Your task to perform on an android device: check android version Image 0: 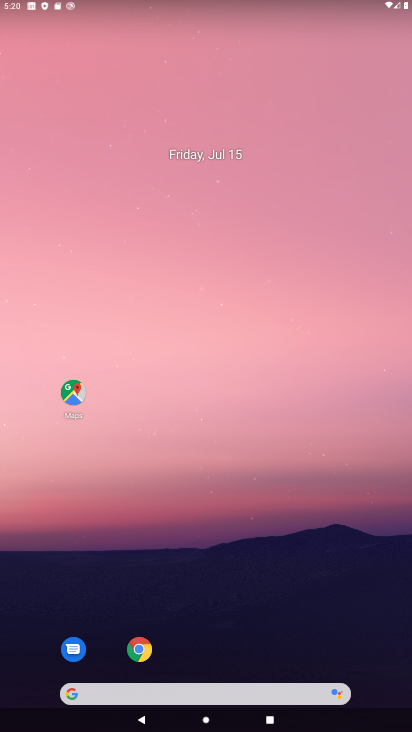
Step 0: drag from (199, 693) to (243, 210)
Your task to perform on an android device: check android version Image 1: 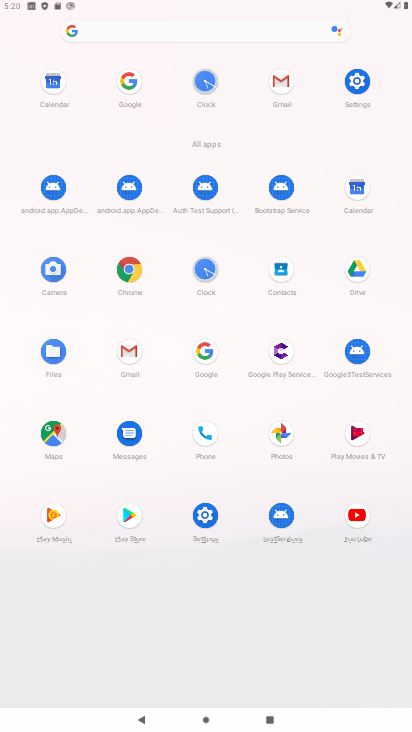
Step 1: click (204, 516)
Your task to perform on an android device: check android version Image 2: 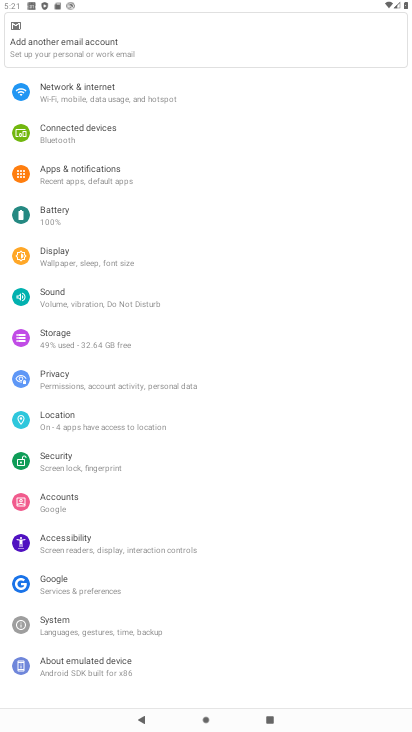
Step 2: click (72, 667)
Your task to perform on an android device: check android version Image 3: 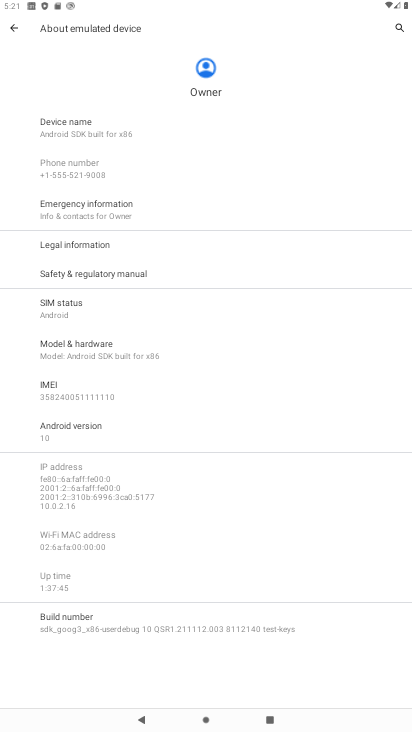
Step 3: click (82, 430)
Your task to perform on an android device: check android version Image 4: 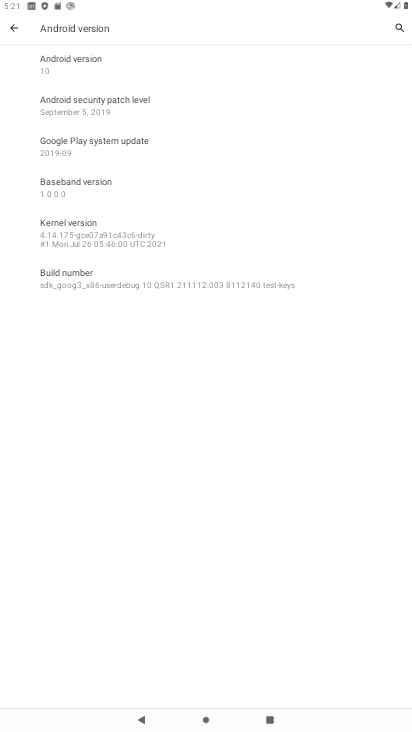
Step 4: task complete